Your task to perform on an android device: change the upload size in google photos Image 0: 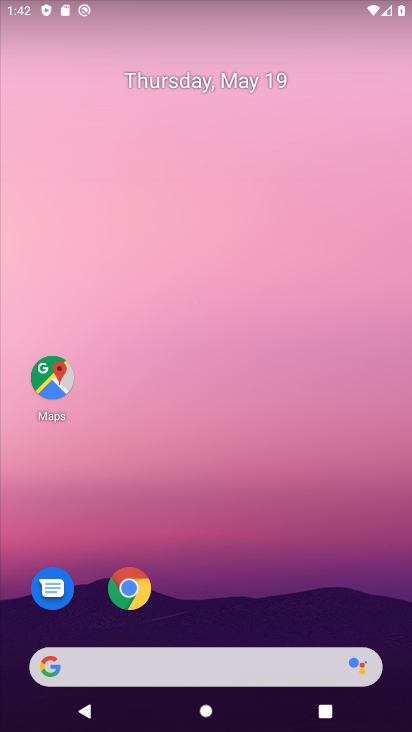
Step 0: drag from (246, 507) to (274, 144)
Your task to perform on an android device: change the upload size in google photos Image 1: 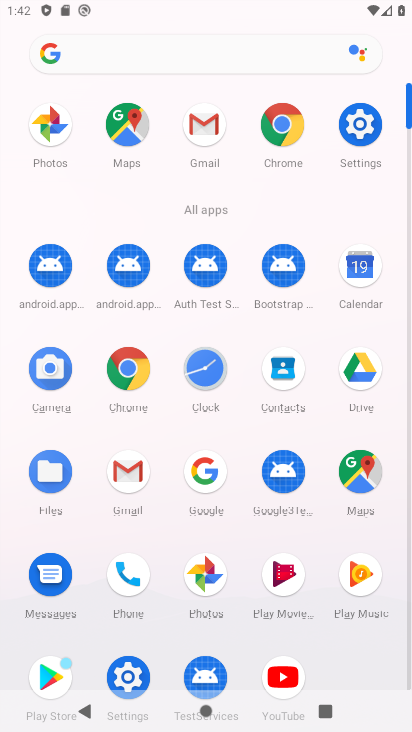
Step 1: click (61, 134)
Your task to perform on an android device: change the upload size in google photos Image 2: 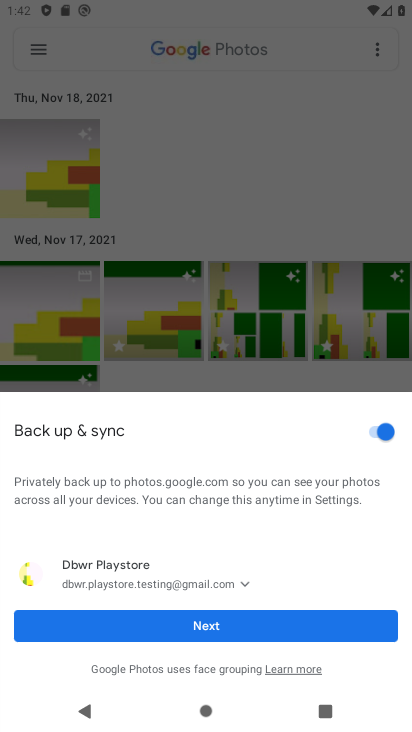
Step 2: click (325, 280)
Your task to perform on an android device: change the upload size in google photos Image 3: 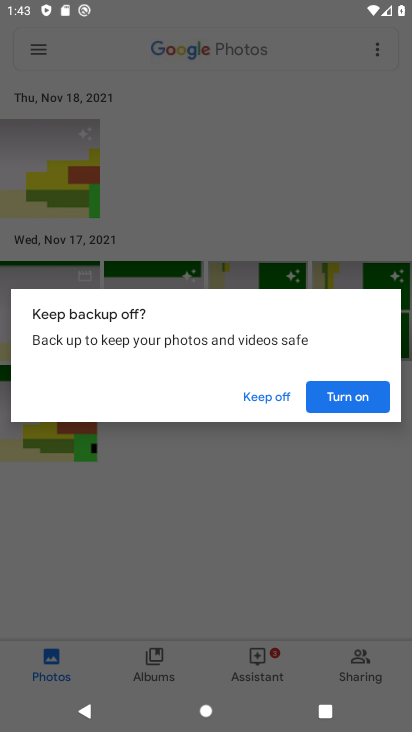
Step 3: click (269, 403)
Your task to perform on an android device: change the upload size in google photos Image 4: 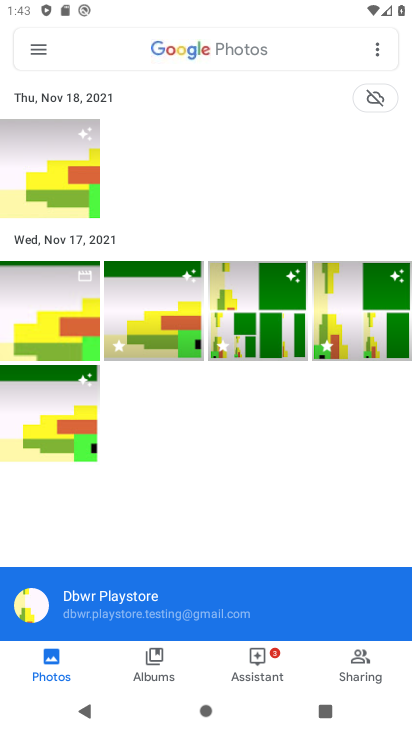
Step 4: click (35, 48)
Your task to perform on an android device: change the upload size in google photos Image 5: 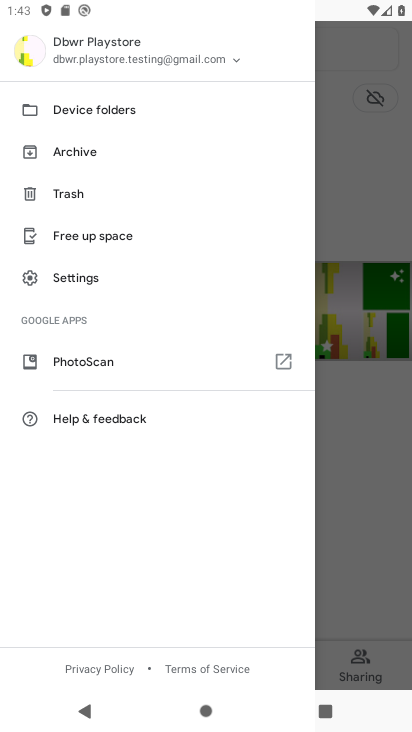
Step 5: click (89, 285)
Your task to perform on an android device: change the upload size in google photos Image 6: 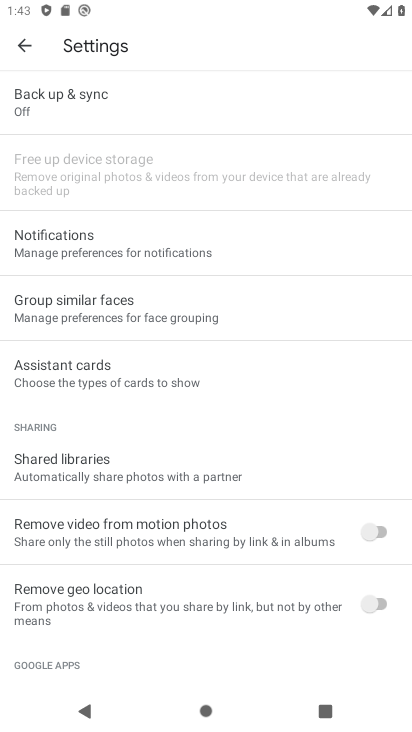
Step 6: click (169, 106)
Your task to perform on an android device: change the upload size in google photos Image 7: 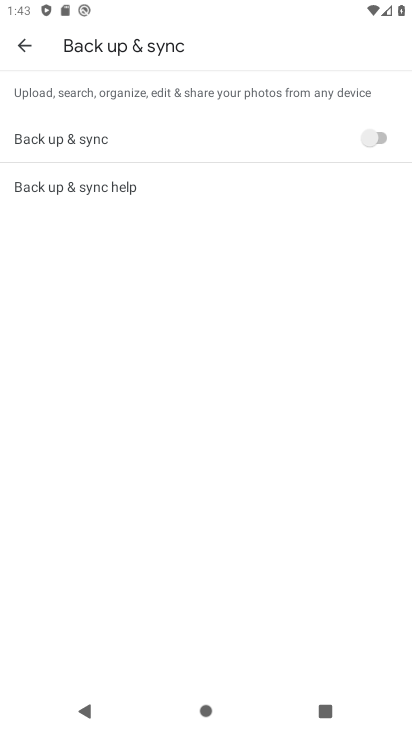
Step 7: click (339, 129)
Your task to perform on an android device: change the upload size in google photos Image 8: 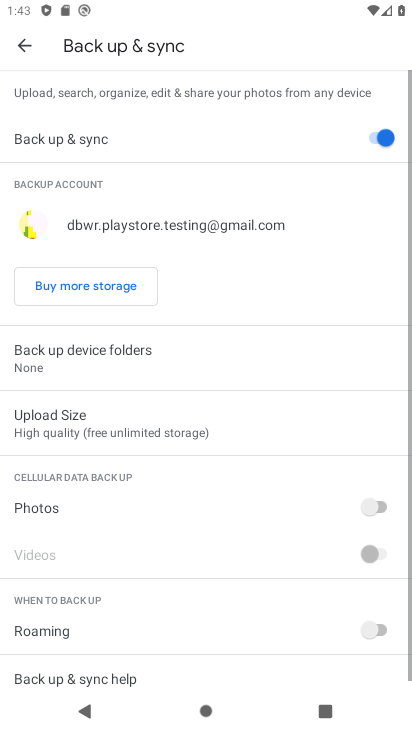
Step 8: click (145, 431)
Your task to perform on an android device: change the upload size in google photos Image 9: 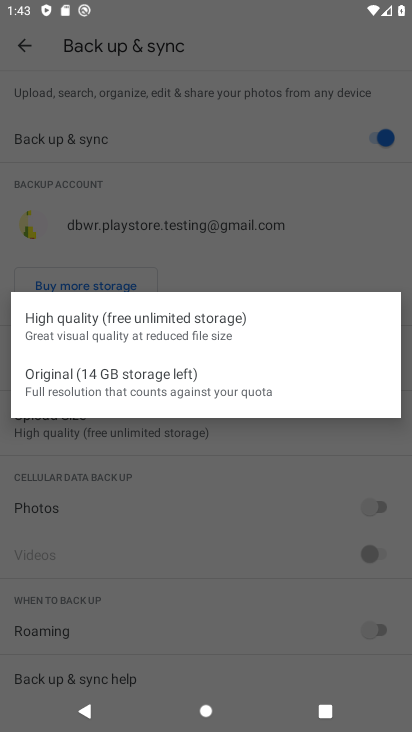
Step 9: click (152, 375)
Your task to perform on an android device: change the upload size in google photos Image 10: 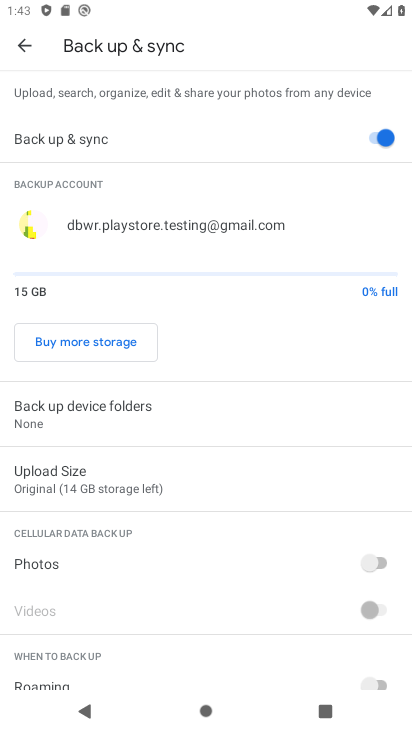
Step 10: task complete